Your task to perform on an android device: Go to settings Image 0: 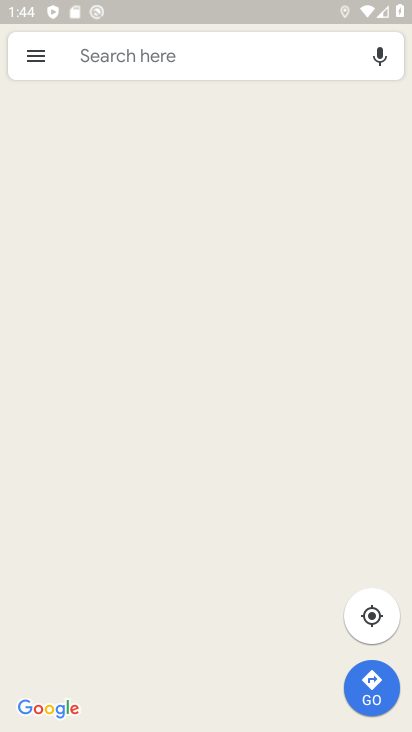
Step 0: click (257, 291)
Your task to perform on an android device: Go to settings Image 1: 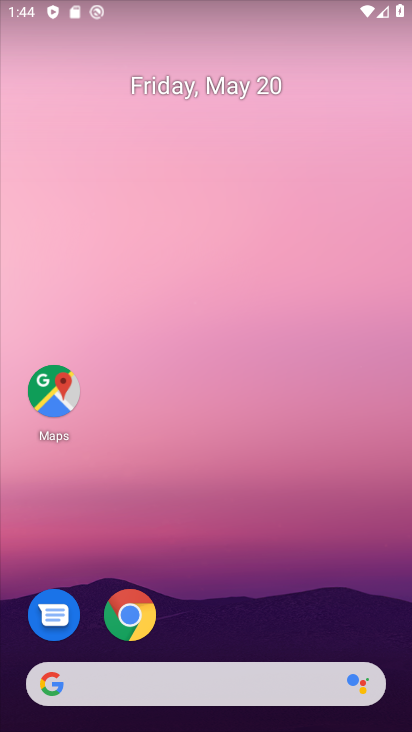
Step 1: drag from (200, 613) to (204, 330)
Your task to perform on an android device: Go to settings Image 2: 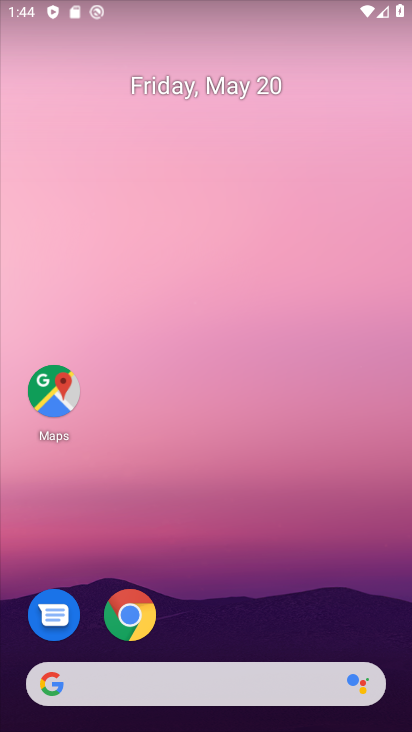
Step 2: drag from (252, 488) to (246, 329)
Your task to perform on an android device: Go to settings Image 3: 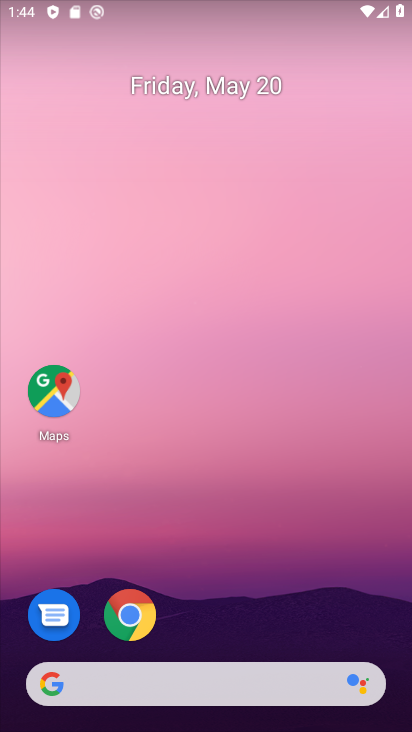
Step 3: drag from (269, 652) to (291, 296)
Your task to perform on an android device: Go to settings Image 4: 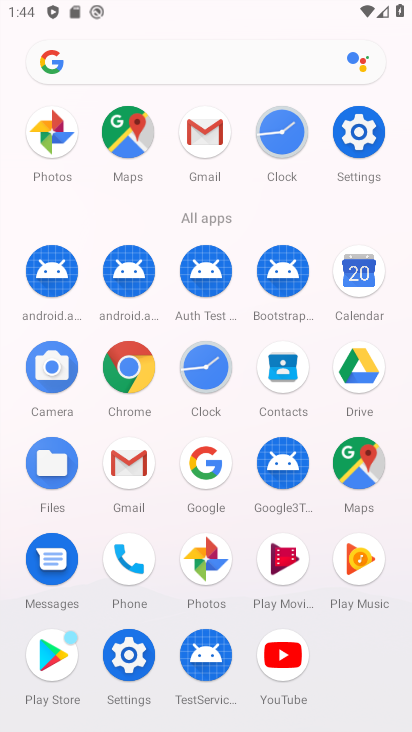
Step 4: click (358, 128)
Your task to perform on an android device: Go to settings Image 5: 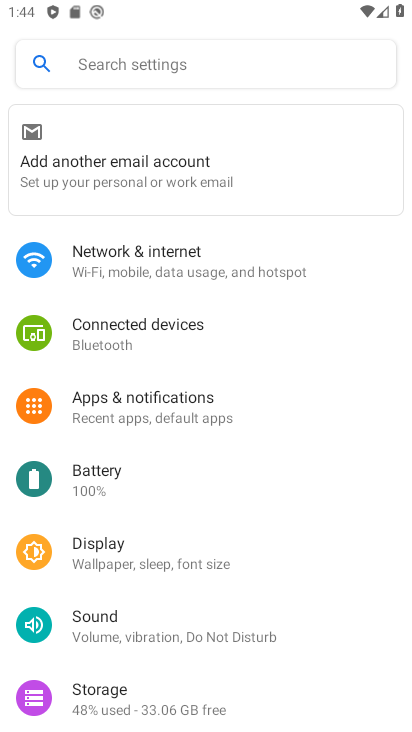
Step 5: task complete